Your task to perform on an android device: Show me productivity apps on the Play Store Image 0: 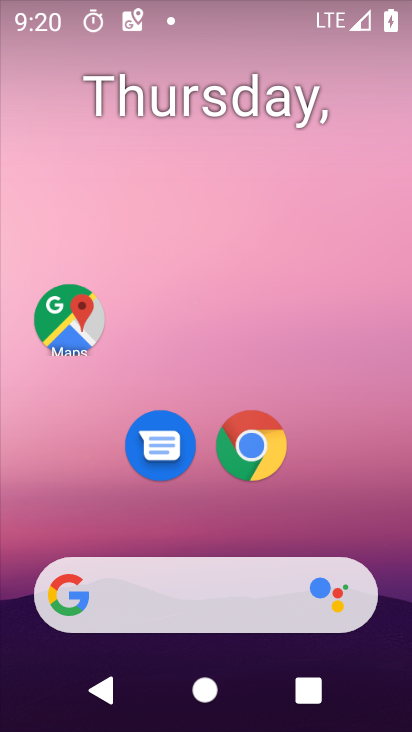
Step 0: drag from (210, 503) to (257, 15)
Your task to perform on an android device: Show me productivity apps on the Play Store Image 1: 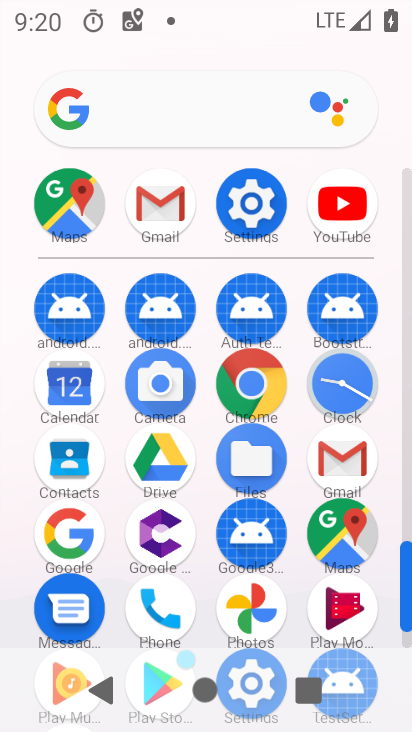
Step 1: drag from (200, 579) to (245, 350)
Your task to perform on an android device: Show me productivity apps on the Play Store Image 2: 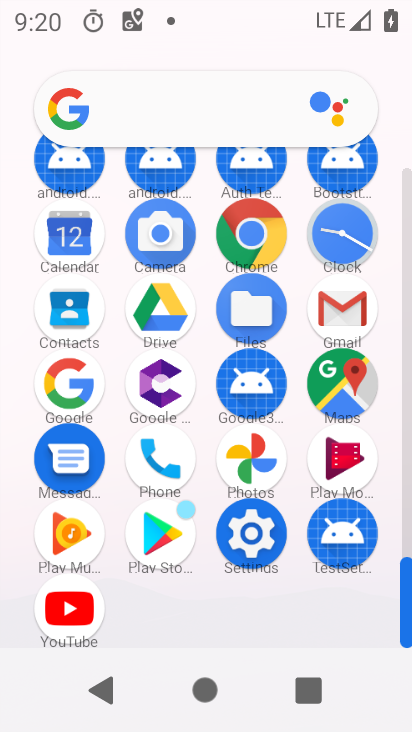
Step 2: click (157, 524)
Your task to perform on an android device: Show me productivity apps on the Play Store Image 3: 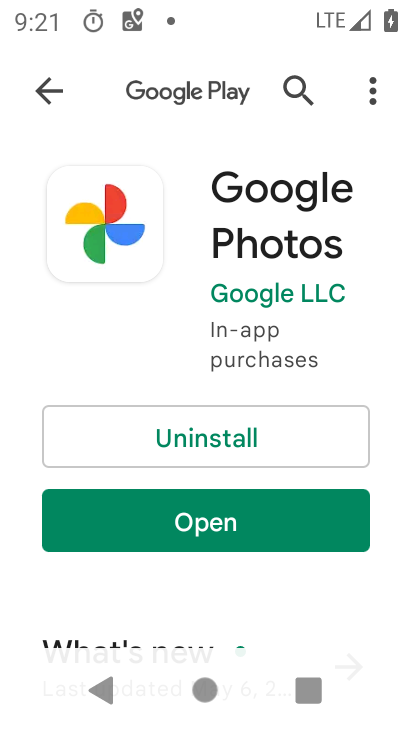
Step 3: click (61, 106)
Your task to perform on an android device: Show me productivity apps on the Play Store Image 4: 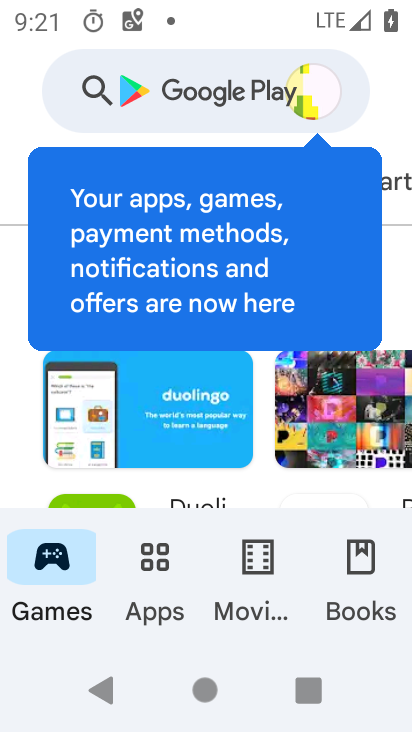
Step 4: drag from (280, 488) to (278, 284)
Your task to perform on an android device: Show me productivity apps on the Play Store Image 5: 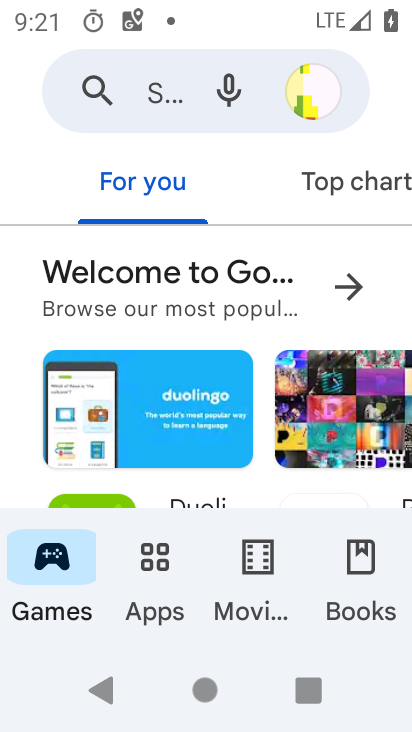
Step 5: drag from (263, 492) to (266, 232)
Your task to perform on an android device: Show me productivity apps on the Play Store Image 6: 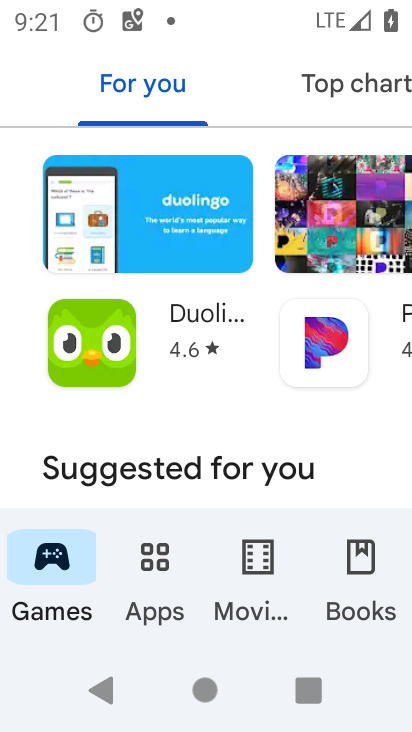
Step 6: click (146, 548)
Your task to perform on an android device: Show me productivity apps on the Play Store Image 7: 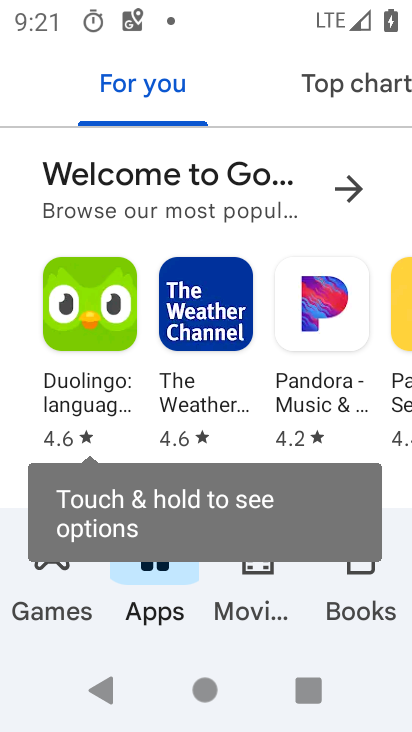
Step 7: task complete